Your task to perform on an android device: empty trash in the gmail app Image 0: 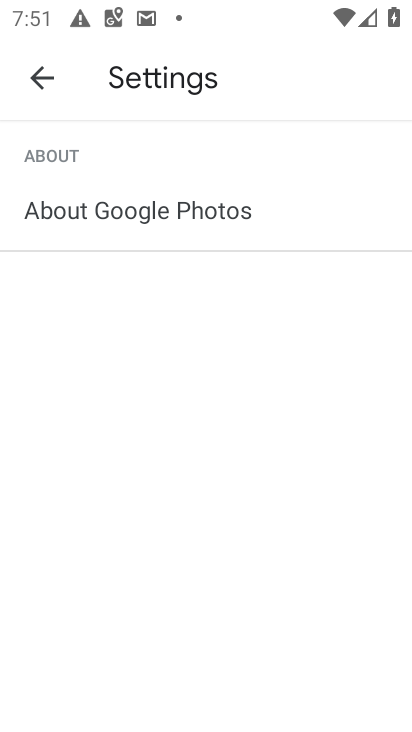
Step 0: press home button
Your task to perform on an android device: empty trash in the gmail app Image 1: 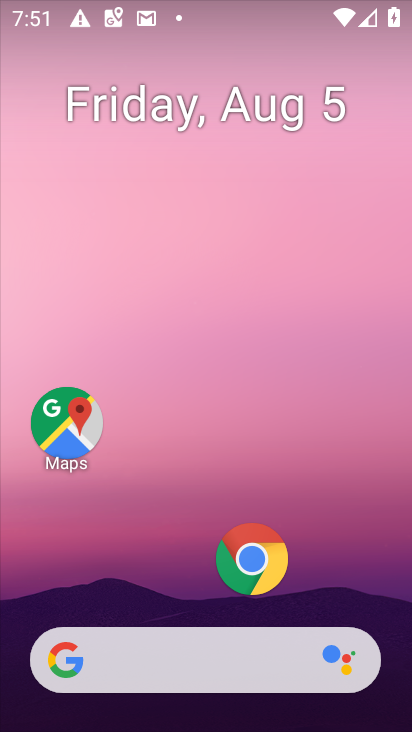
Step 1: drag from (166, 587) to (205, 14)
Your task to perform on an android device: empty trash in the gmail app Image 2: 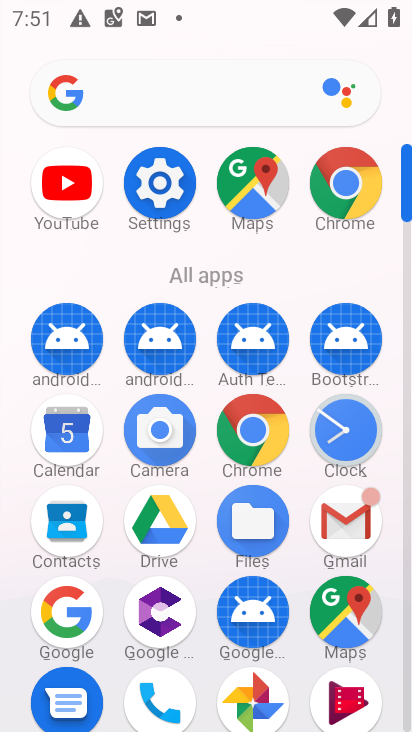
Step 2: click (340, 529)
Your task to perform on an android device: empty trash in the gmail app Image 3: 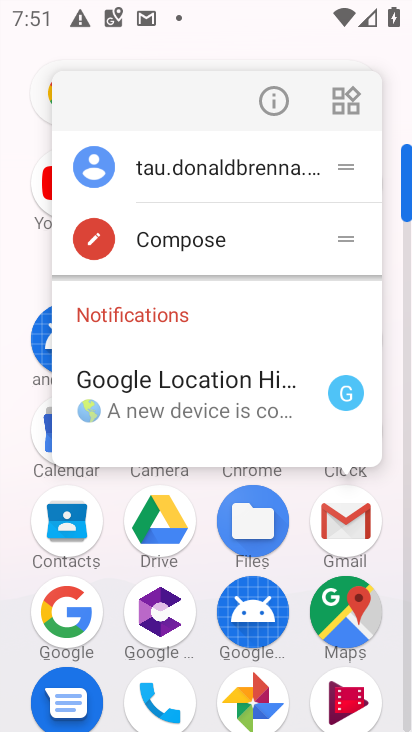
Step 3: click (353, 531)
Your task to perform on an android device: empty trash in the gmail app Image 4: 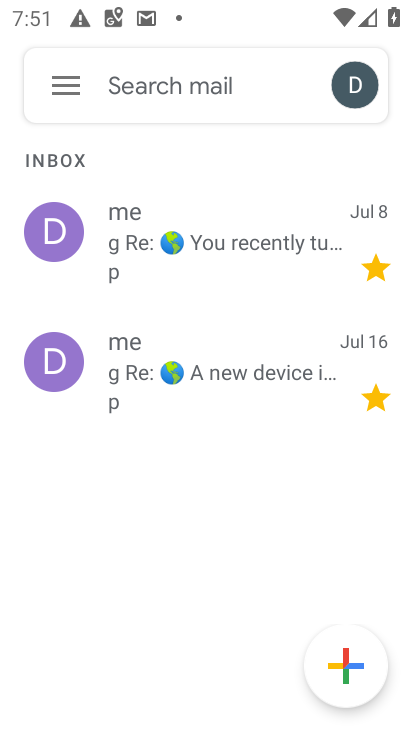
Step 4: click (59, 77)
Your task to perform on an android device: empty trash in the gmail app Image 5: 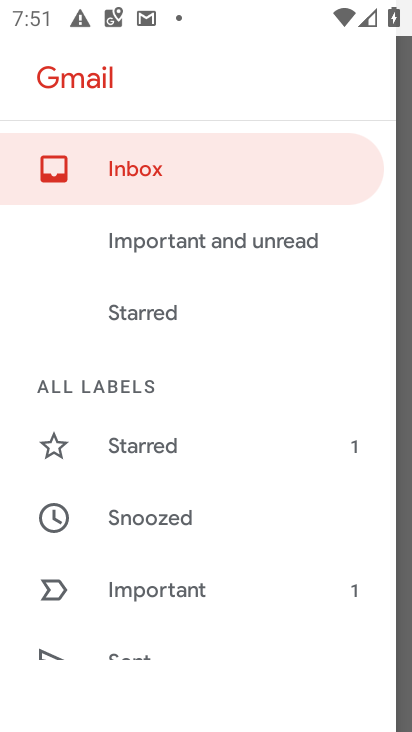
Step 5: drag from (150, 614) to (228, 0)
Your task to perform on an android device: empty trash in the gmail app Image 6: 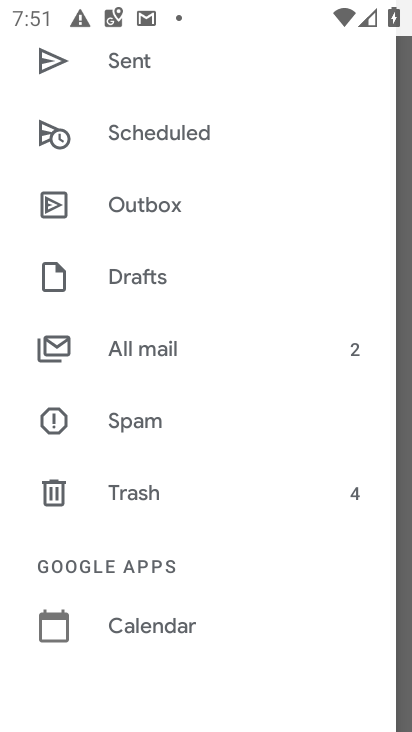
Step 6: drag from (159, 506) to (176, 419)
Your task to perform on an android device: empty trash in the gmail app Image 7: 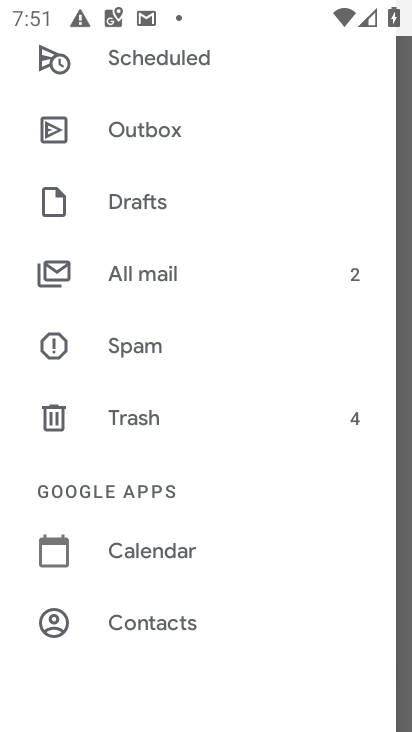
Step 7: click (136, 417)
Your task to perform on an android device: empty trash in the gmail app Image 8: 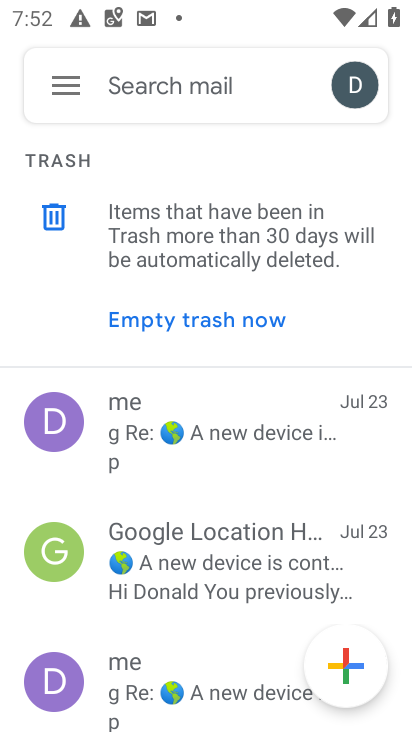
Step 8: click (187, 317)
Your task to perform on an android device: empty trash in the gmail app Image 9: 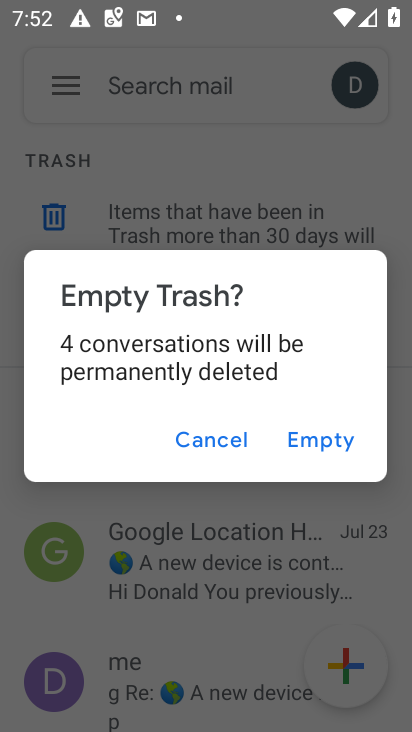
Step 9: click (339, 444)
Your task to perform on an android device: empty trash in the gmail app Image 10: 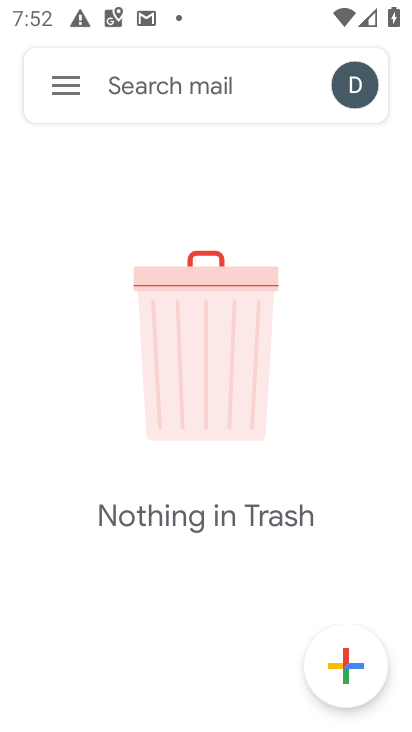
Step 10: task complete